Your task to perform on an android device: star an email in the gmail app Image 0: 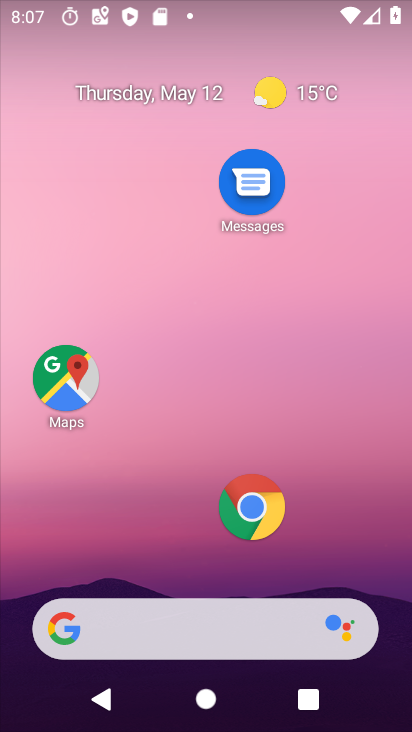
Step 0: drag from (162, 573) to (200, 41)
Your task to perform on an android device: star an email in the gmail app Image 1: 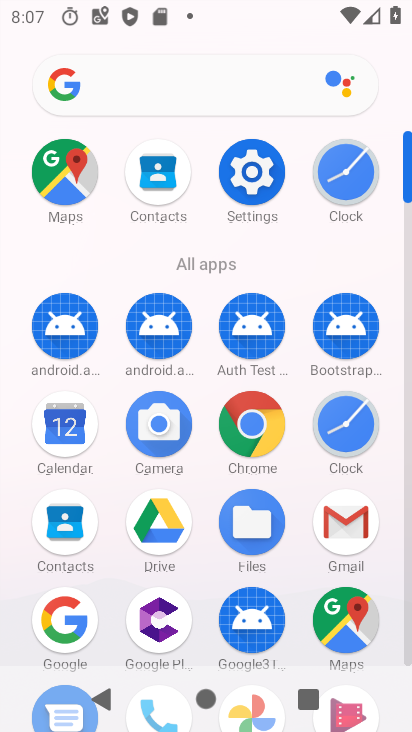
Step 1: click (346, 537)
Your task to perform on an android device: star an email in the gmail app Image 2: 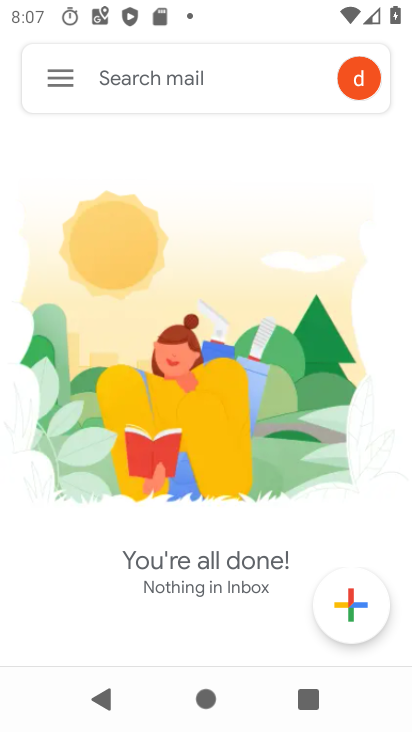
Step 2: click (55, 89)
Your task to perform on an android device: star an email in the gmail app Image 3: 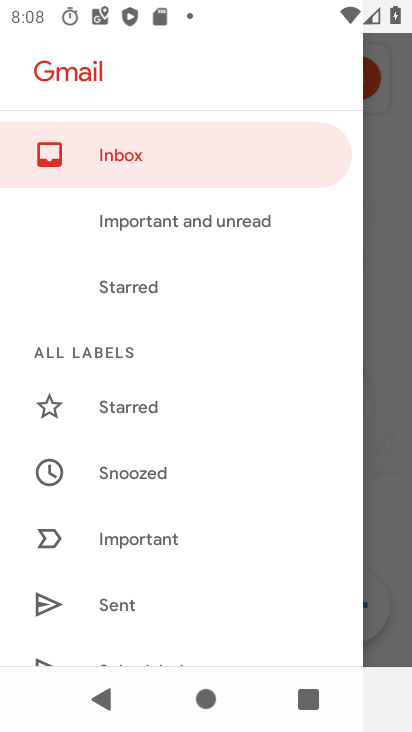
Step 3: drag from (145, 575) to (184, 367)
Your task to perform on an android device: star an email in the gmail app Image 4: 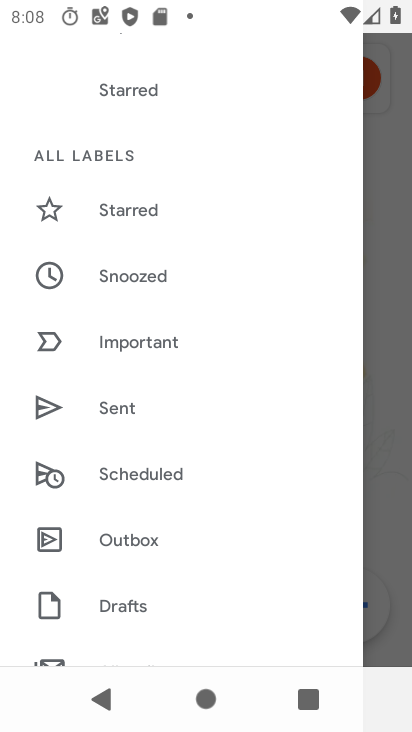
Step 4: drag from (184, 583) to (199, 352)
Your task to perform on an android device: star an email in the gmail app Image 5: 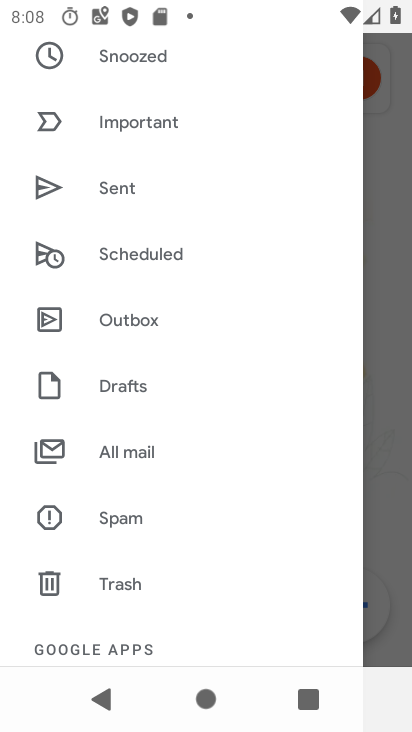
Step 5: click (170, 452)
Your task to perform on an android device: star an email in the gmail app Image 6: 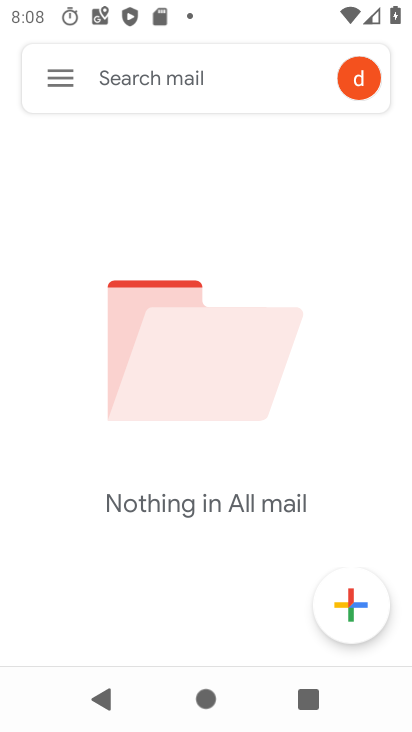
Step 6: task complete